Your task to perform on an android device: When is my next appointment? Image 0: 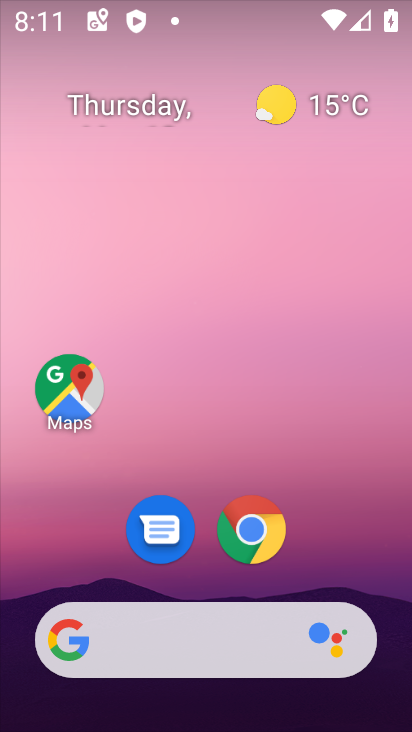
Step 0: drag from (204, 706) to (171, 112)
Your task to perform on an android device: When is my next appointment? Image 1: 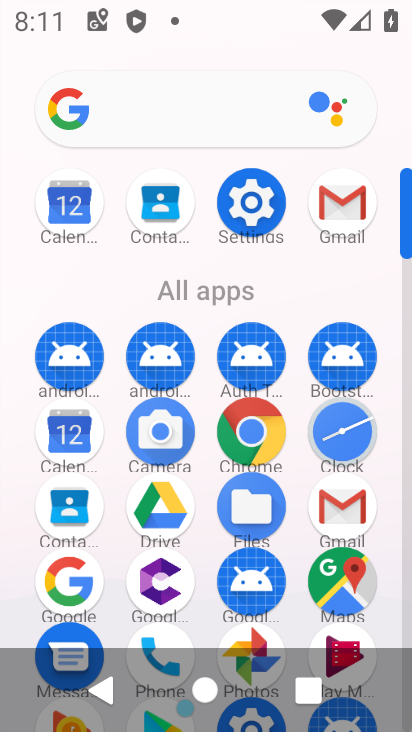
Step 1: click (60, 438)
Your task to perform on an android device: When is my next appointment? Image 2: 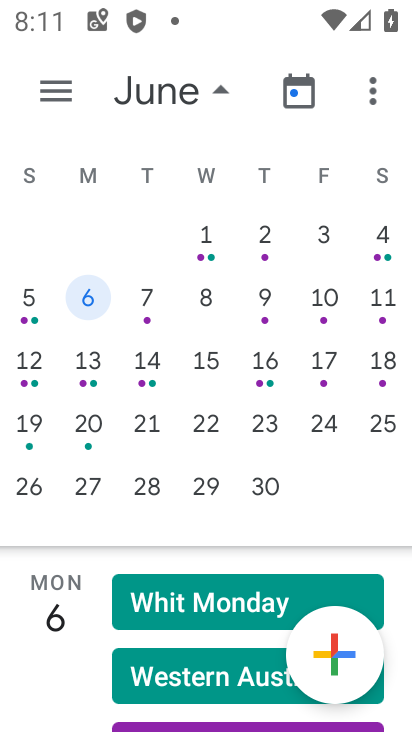
Step 2: click (61, 90)
Your task to perform on an android device: When is my next appointment? Image 3: 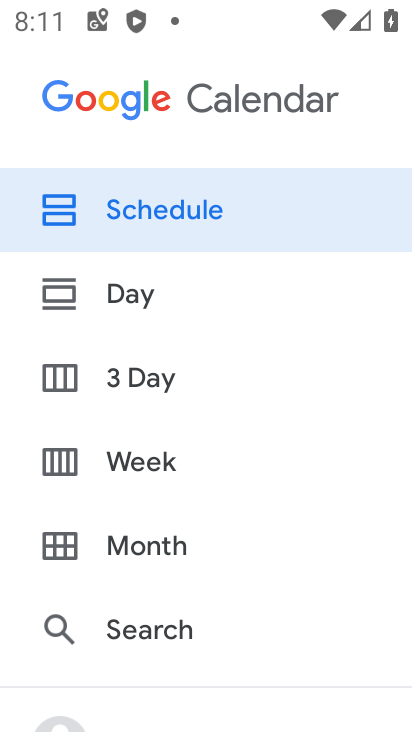
Step 3: click (225, 210)
Your task to perform on an android device: When is my next appointment? Image 4: 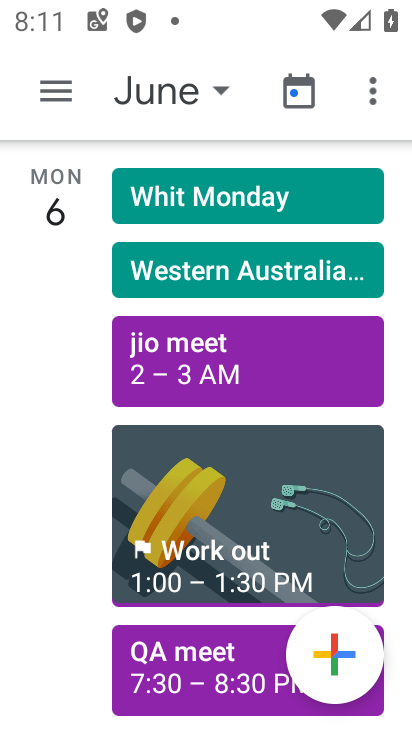
Step 4: task complete